Your task to perform on an android device: Go to wifi settings Image 0: 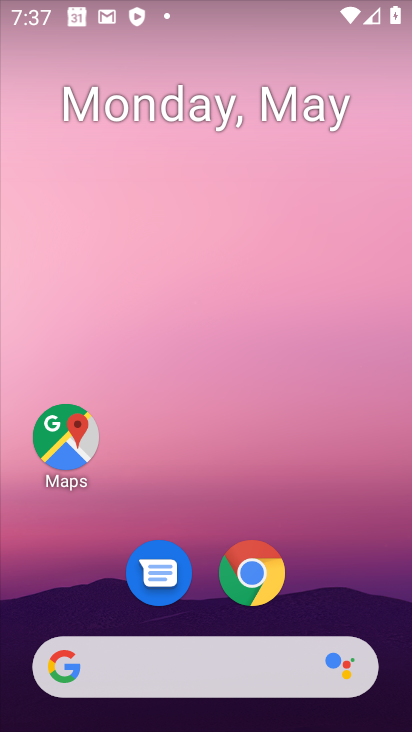
Step 0: drag from (214, 684) to (181, 228)
Your task to perform on an android device: Go to wifi settings Image 1: 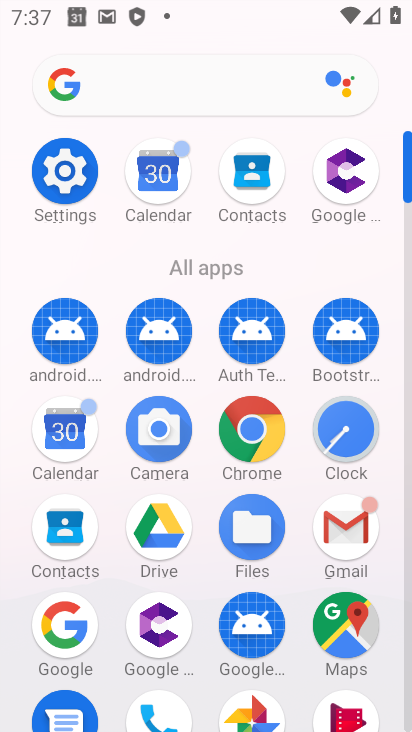
Step 1: click (79, 185)
Your task to perform on an android device: Go to wifi settings Image 2: 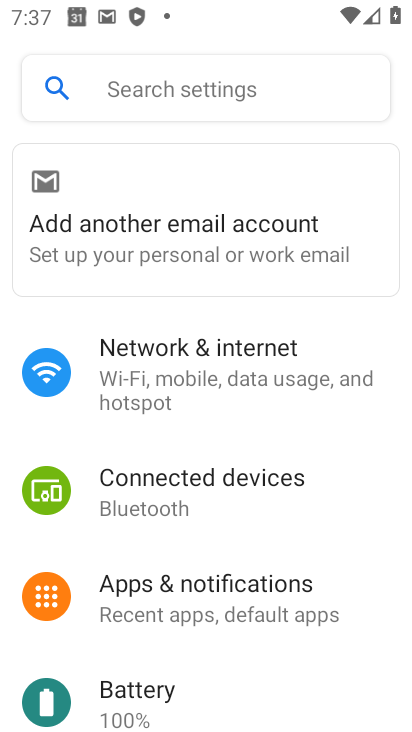
Step 2: click (176, 410)
Your task to perform on an android device: Go to wifi settings Image 3: 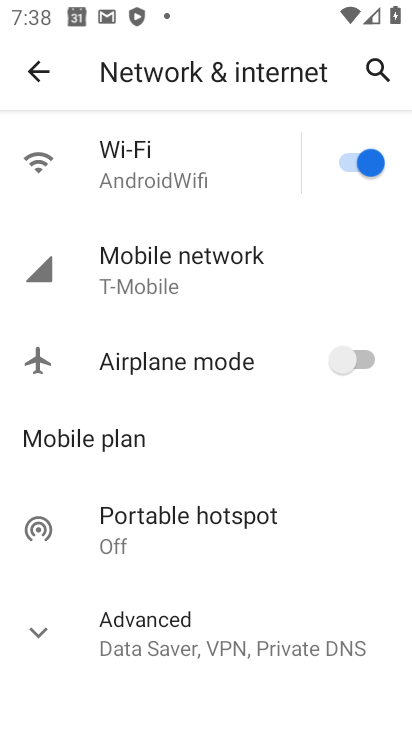
Step 3: click (141, 190)
Your task to perform on an android device: Go to wifi settings Image 4: 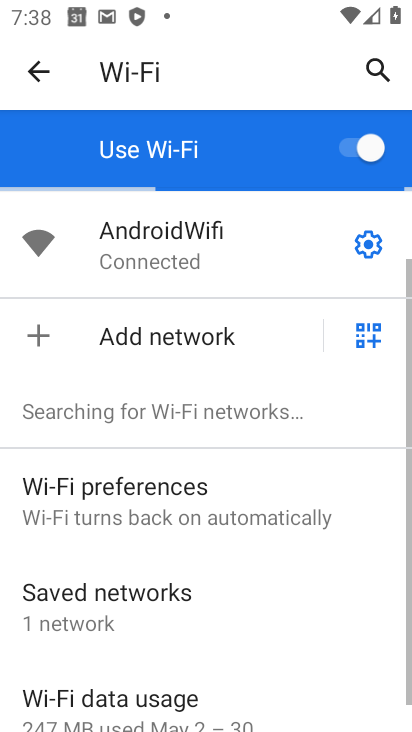
Step 4: task complete